Your task to perform on an android device: turn smart compose on in the gmail app Image 0: 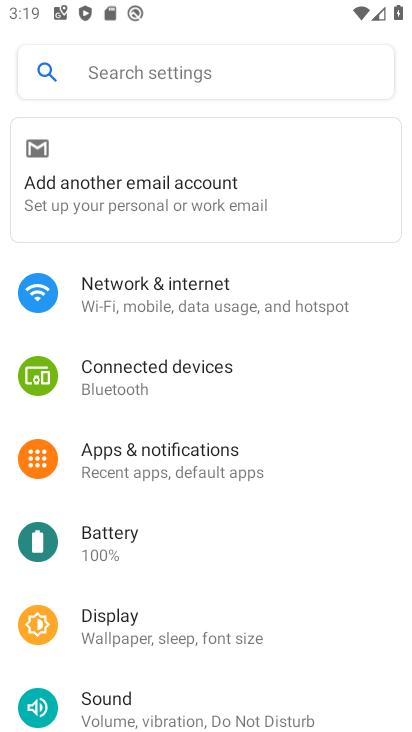
Step 0: press back button
Your task to perform on an android device: turn smart compose on in the gmail app Image 1: 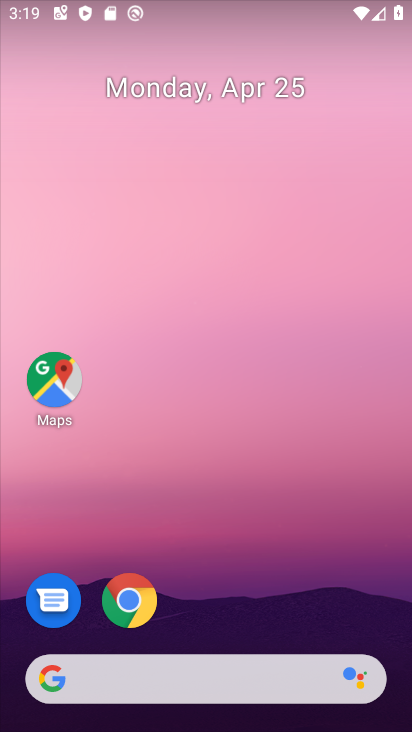
Step 1: drag from (255, 462) to (256, 92)
Your task to perform on an android device: turn smart compose on in the gmail app Image 2: 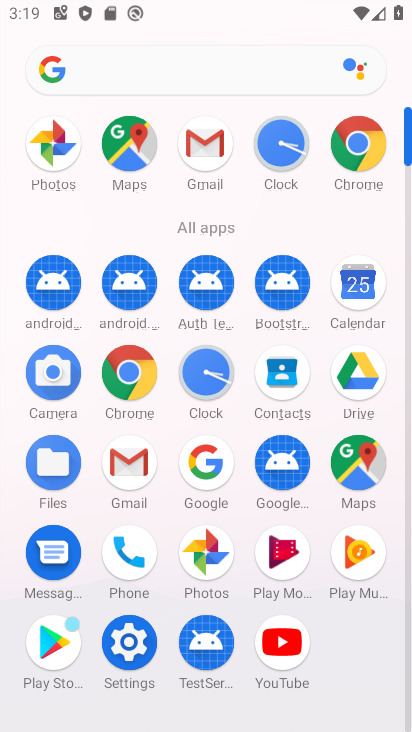
Step 2: drag from (12, 536) to (9, 218)
Your task to perform on an android device: turn smart compose on in the gmail app Image 3: 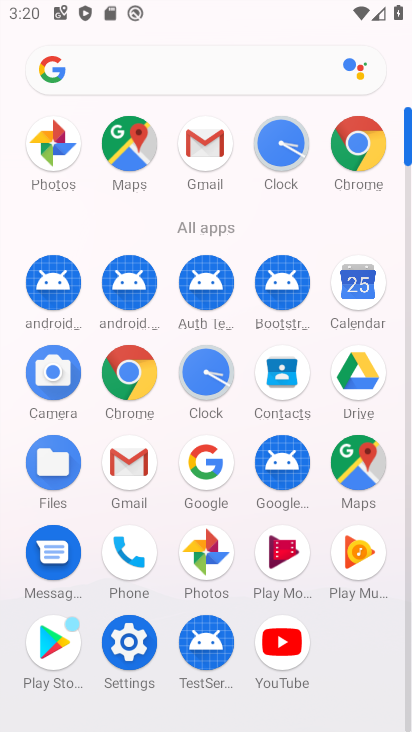
Step 3: click (133, 457)
Your task to perform on an android device: turn smart compose on in the gmail app Image 4: 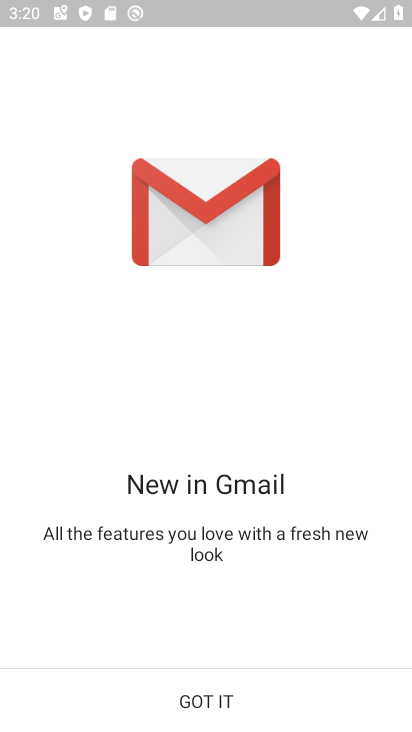
Step 4: click (193, 688)
Your task to perform on an android device: turn smart compose on in the gmail app Image 5: 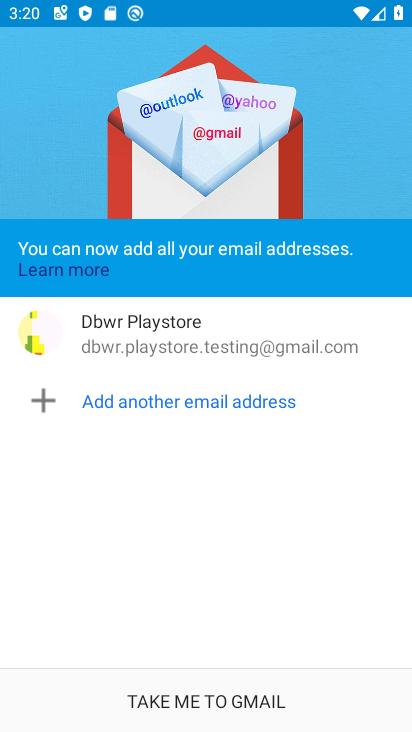
Step 5: click (193, 688)
Your task to perform on an android device: turn smart compose on in the gmail app Image 6: 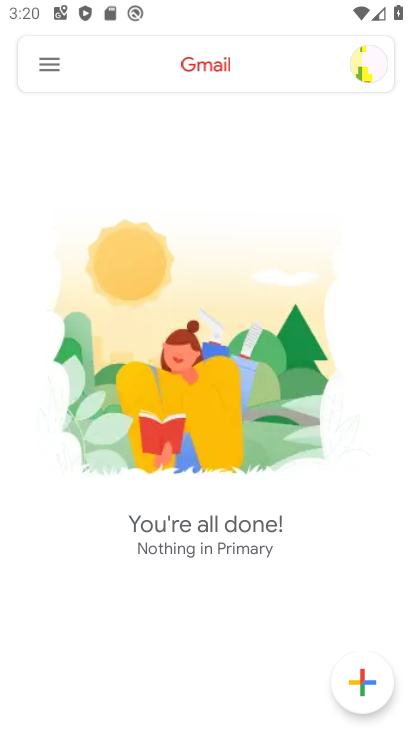
Step 6: click (49, 63)
Your task to perform on an android device: turn smart compose on in the gmail app Image 7: 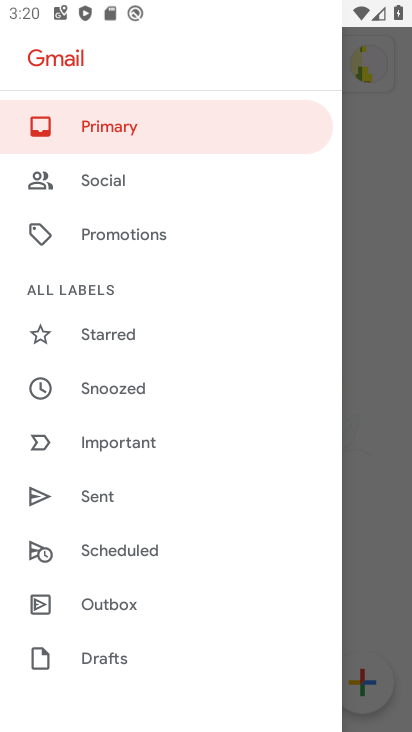
Step 7: drag from (259, 469) to (239, 161)
Your task to perform on an android device: turn smart compose on in the gmail app Image 8: 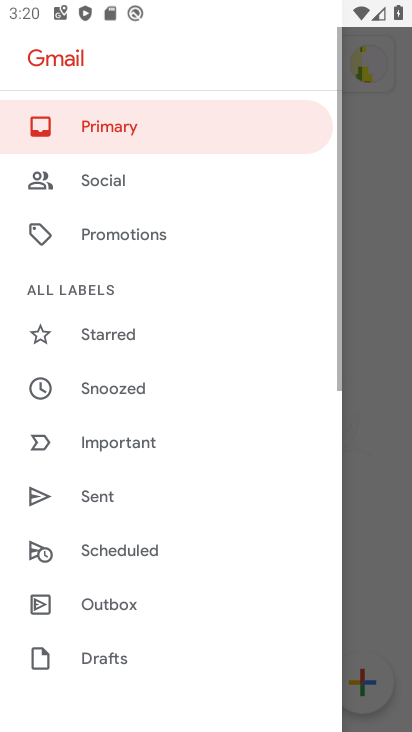
Step 8: drag from (209, 471) to (222, 130)
Your task to perform on an android device: turn smart compose on in the gmail app Image 9: 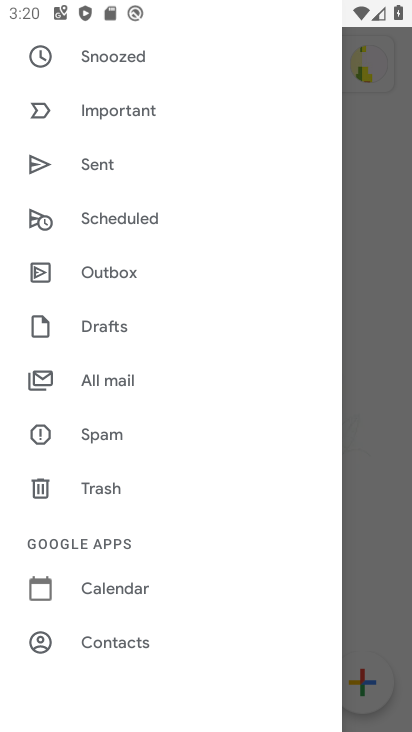
Step 9: drag from (233, 586) to (237, 160)
Your task to perform on an android device: turn smart compose on in the gmail app Image 10: 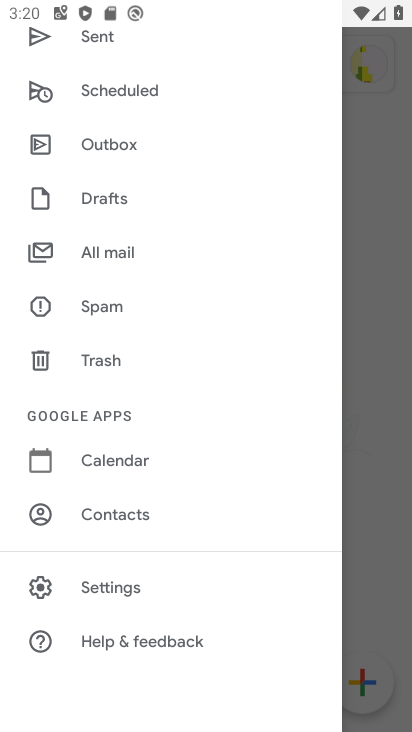
Step 10: click (109, 589)
Your task to perform on an android device: turn smart compose on in the gmail app Image 11: 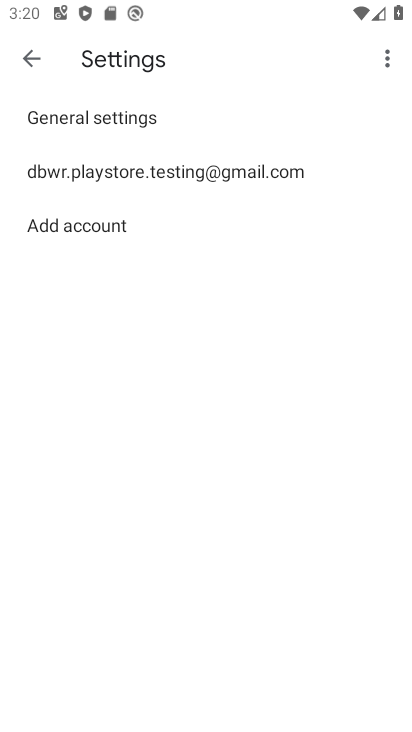
Step 11: click (144, 164)
Your task to perform on an android device: turn smart compose on in the gmail app Image 12: 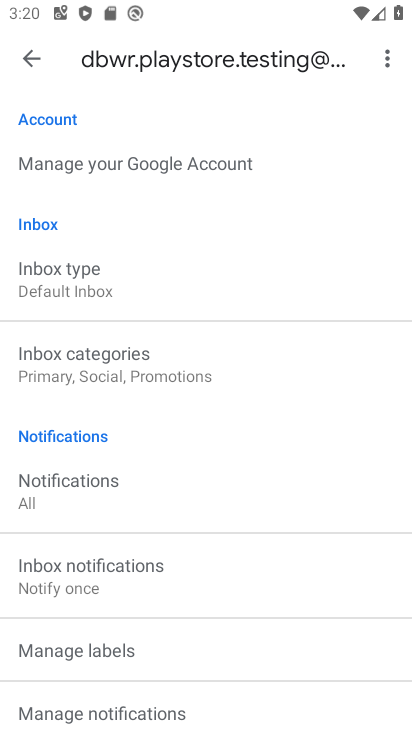
Step 12: drag from (225, 537) to (218, 124)
Your task to perform on an android device: turn smart compose on in the gmail app Image 13: 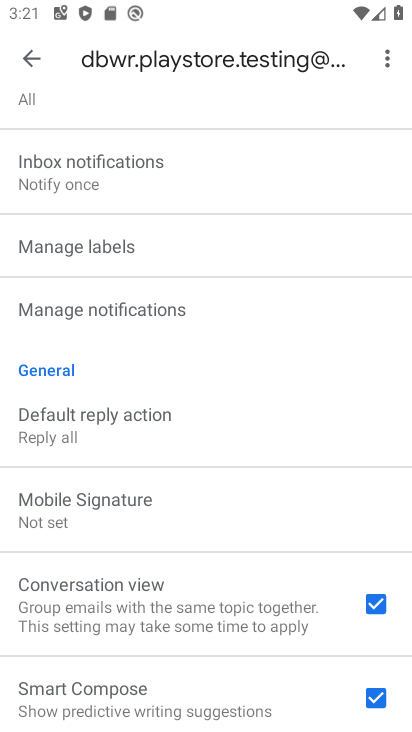
Step 13: drag from (267, 438) to (263, 95)
Your task to perform on an android device: turn smart compose on in the gmail app Image 14: 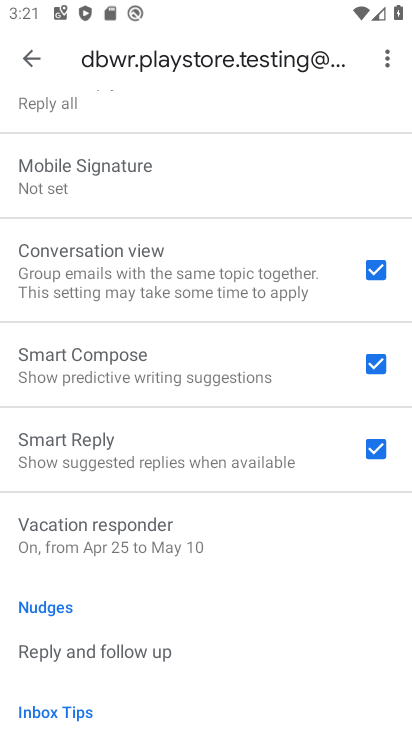
Step 14: drag from (231, 471) to (238, 174)
Your task to perform on an android device: turn smart compose on in the gmail app Image 15: 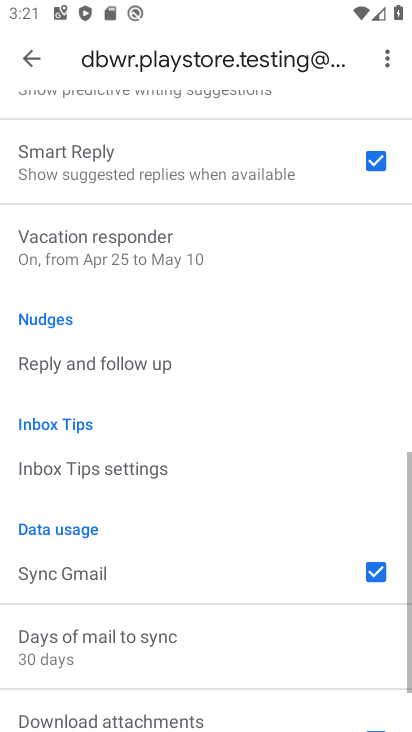
Step 15: drag from (227, 593) to (219, 172)
Your task to perform on an android device: turn smart compose on in the gmail app Image 16: 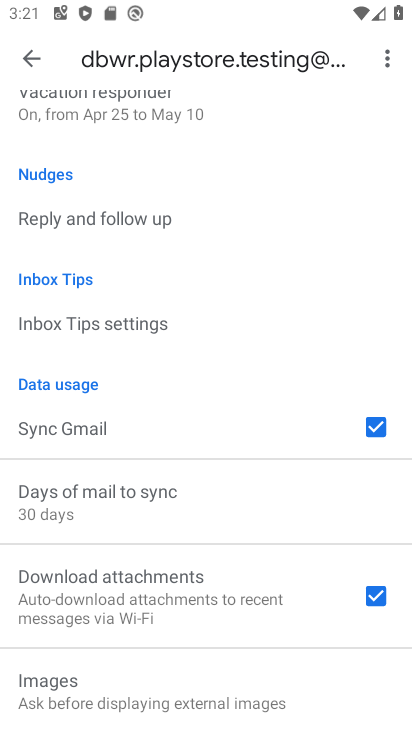
Step 16: drag from (235, 159) to (227, 601)
Your task to perform on an android device: turn smart compose on in the gmail app Image 17: 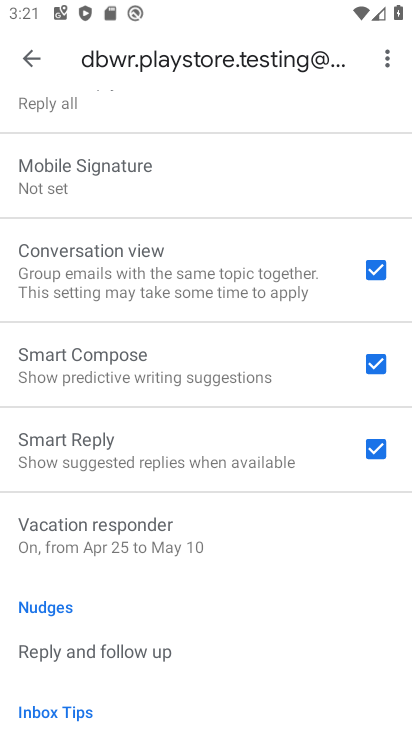
Step 17: drag from (217, 172) to (215, 566)
Your task to perform on an android device: turn smart compose on in the gmail app Image 18: 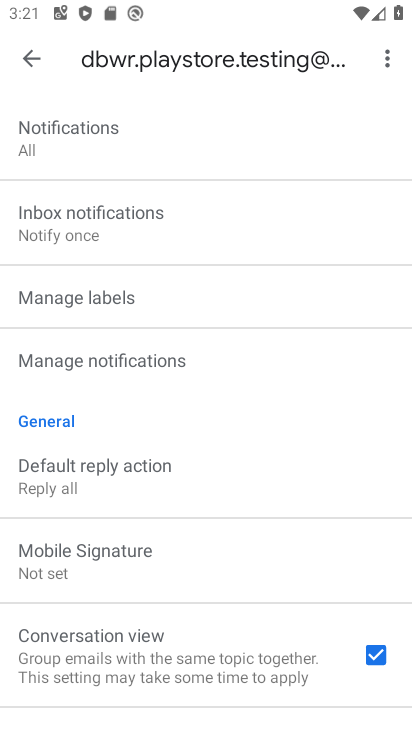
Step 18: drag from (208, 450) to (210, 128)
Your task to perform on an android device: turn smart compose on in the gmail app Image 19: 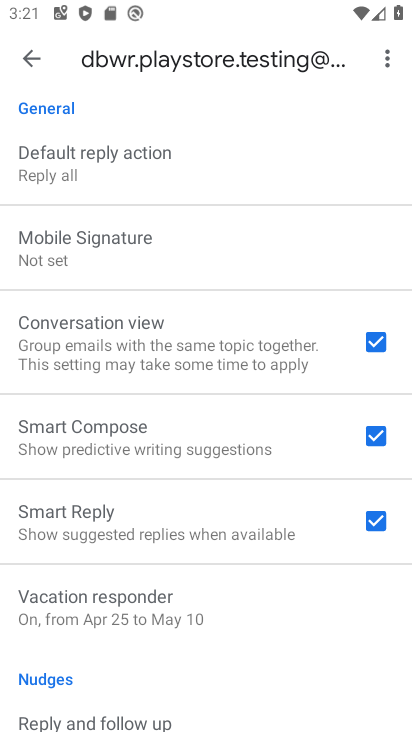
Step 19: click (373, 439)
Your task to perform on an android device: turn smart compose on in the gmail app Image 20: 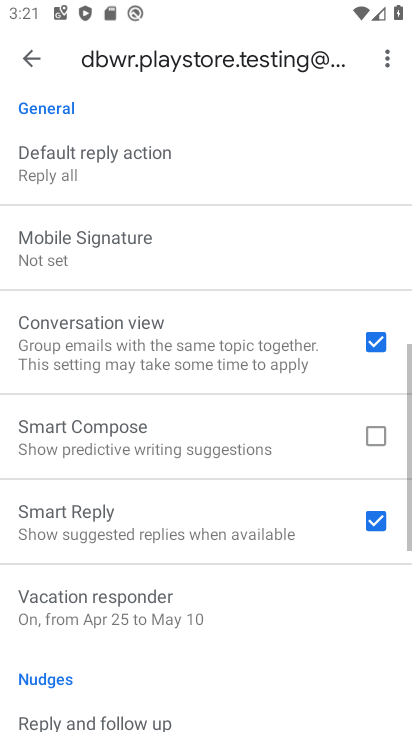
Step 20: click (373, 439)
Your task to perform on an android device: turn smart compose on in the gmail app Image 21: 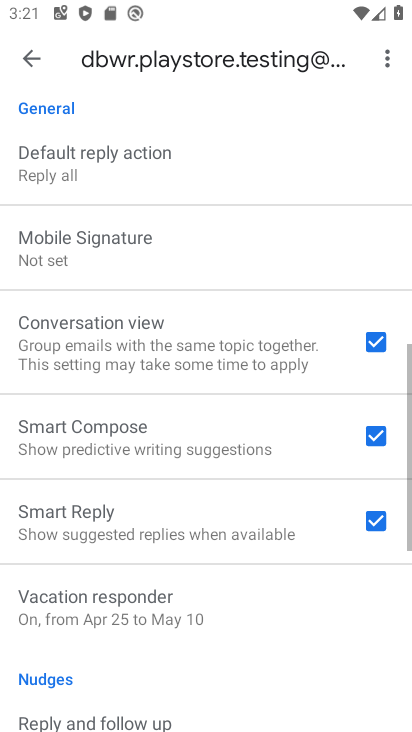
Step 21: task complete